Your task to perform on an android device: Open the calendar app, open the side menu, and click the "Day" option Image 0: 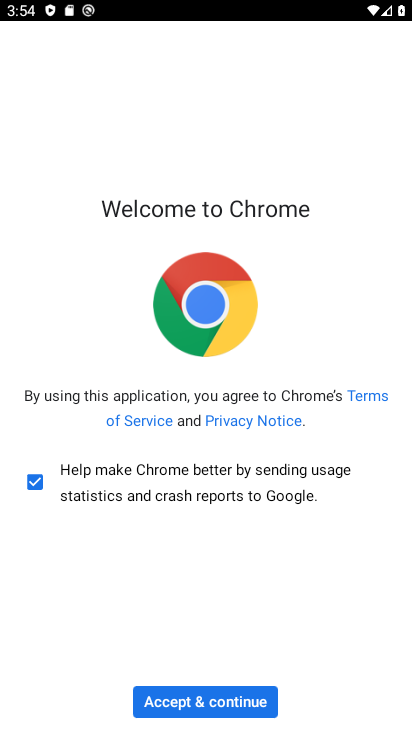
Step 0: press home button
Your task to perform on an android device: Open the calendar app, open the side menu, and click the "Day" option Image 1: 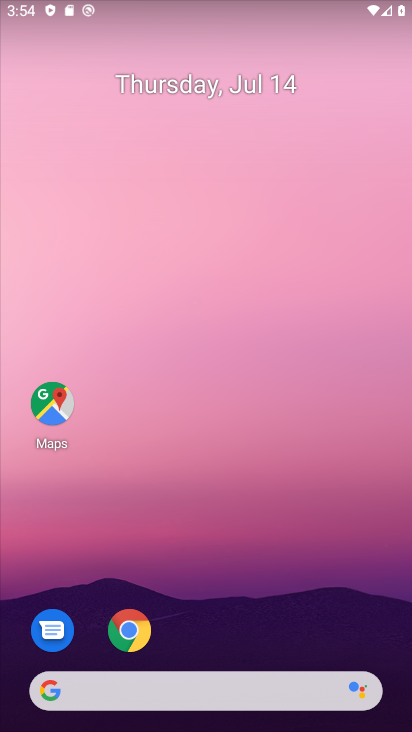
Step 1: drag from (199, 638) to (258, 159)
Your task to perform on an android device: Open the calendar app, open the side menu, and click the "Day" option Image 2: 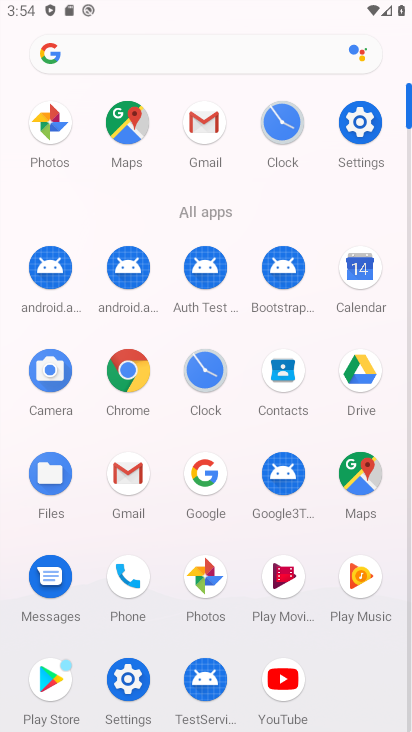
Step 2: click (353, 277)
Your task to perform on an android device: Open the calendar app, open the side menu, and click the "Day" option Image 3: 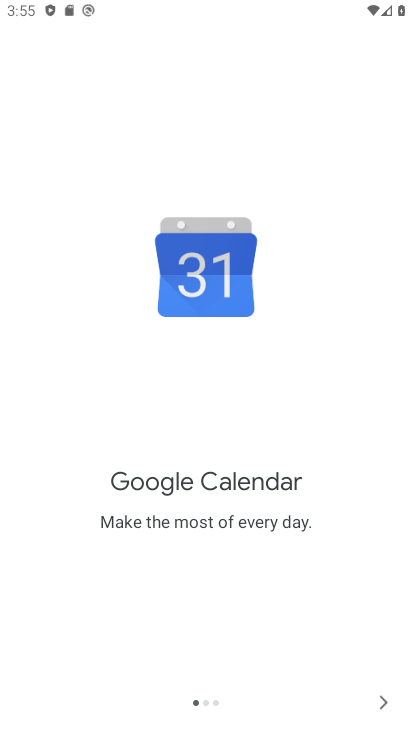
Step 3: click (388, 714)
Your task to perform on an android device: Open the calendar app, open the side menu, and click the "Day" option Image 4: 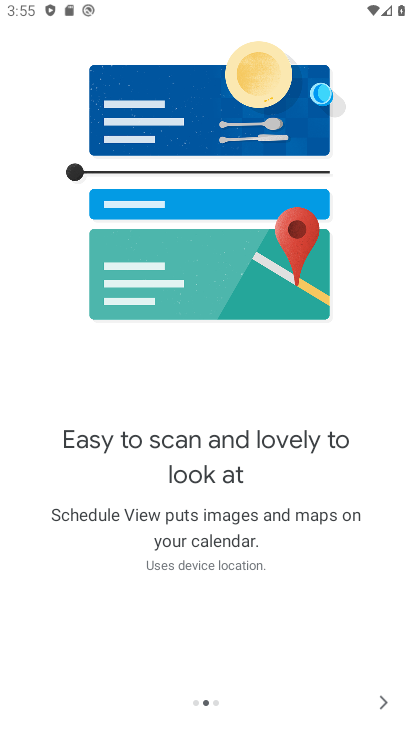
Step 4: click (388, 714)
Your task to perform on an android device: Open the calendar app, open the side menu, and click the "Day" option Image 5: 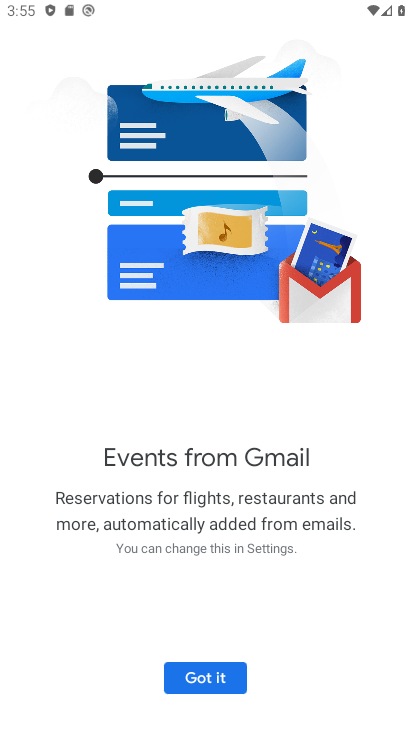
Step 5: click (201, 694)
Your task to perform on an android device: Open the calendar app, open the side menu, and click the "Day" option Image 6: 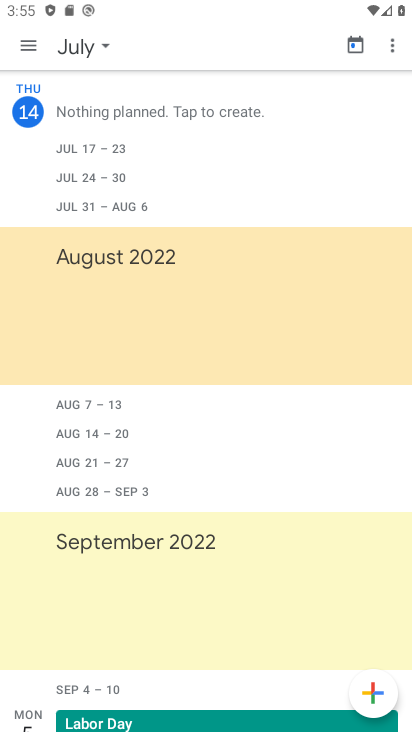
Step 6: click (28, 49)
Your task to perform on an android device: Open the calendar app, open the side menu, and click the "Day" option Image 7: 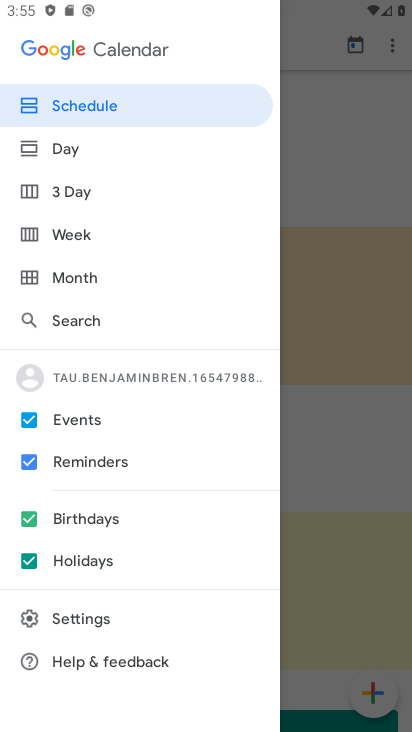
Step 7: click (89, 152)
Your task to perform on an android device: Open the calendar app, open the side menu, and click the "Day" option Image 8: 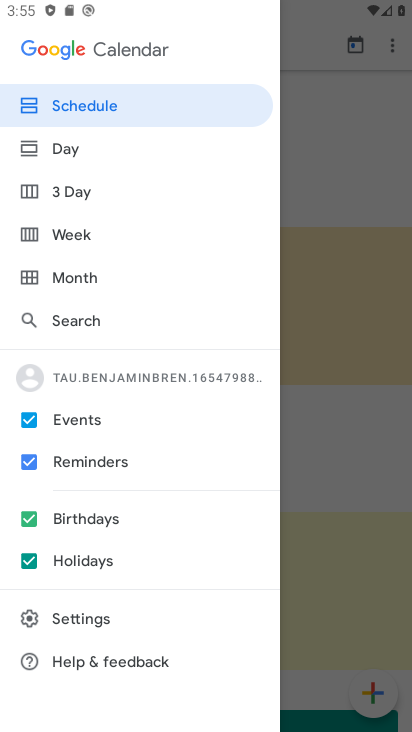
Step 8: click (89, 152)
Your task to perform on an android device: Open the calendar app, open the side menu, and click the "Day" option Image 9: 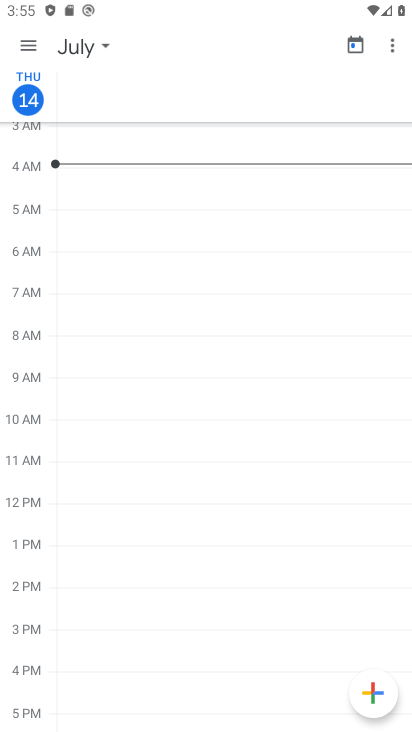
Step 9: task complete